Your task to perform on an android device: Open the calculator Image 0: 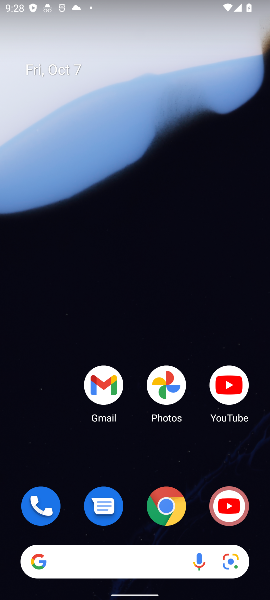
Step 0: drag from (141, 545) to (228, 16)
Your task to perform on an android device: Open the calculator Image 1: 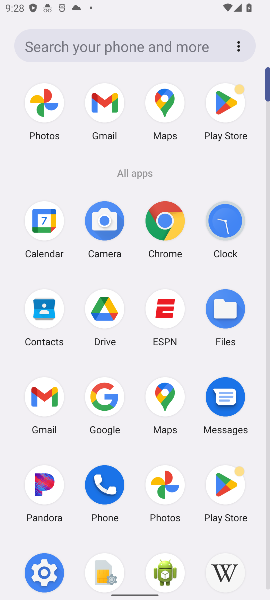
Step 1: click (68, 43)
Your task to perform on an android device: Open the calculator Image 2: 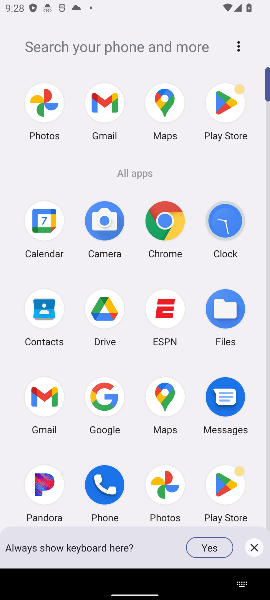
Step 2: type " calculator"
Your task to perform on an android device: Open the calculator Image 3: 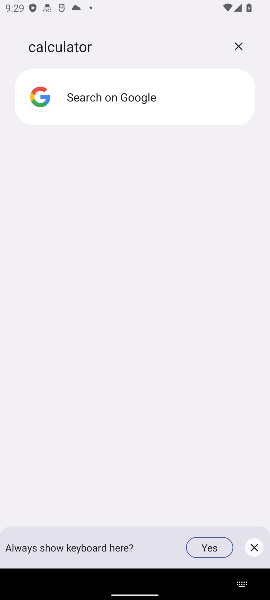
Step 3: task complete